Your task to perform on an android device: Go to notification settings Image 0: 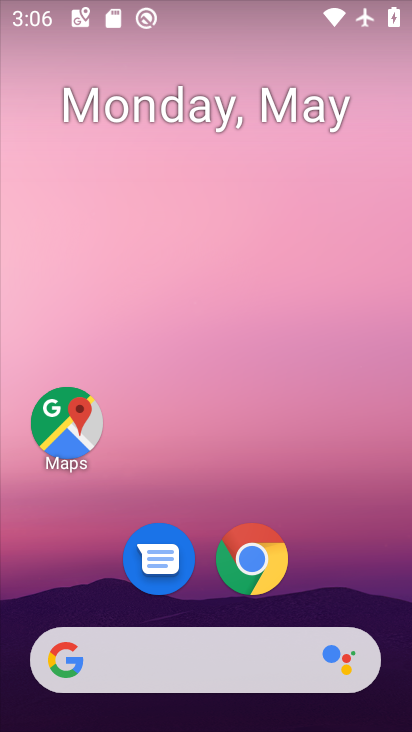
Step 0: drag from (321, 585) to (303, 11)
Your task to perform on an android device: Go to notification settings Image 1: 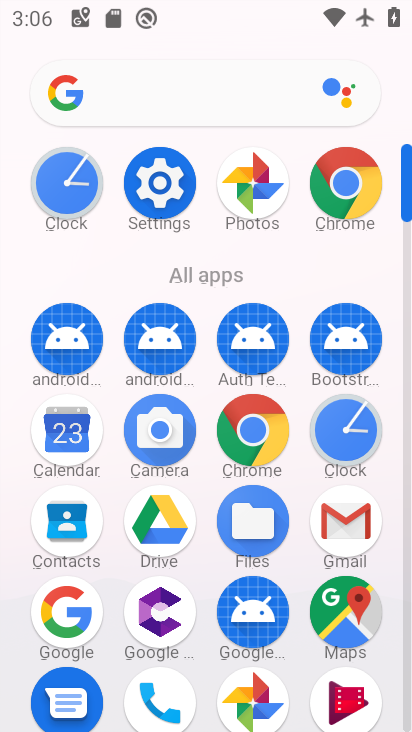
Step 1: click (161, 205)
Your task to perform on an android device: Go to notification settings Image 2: 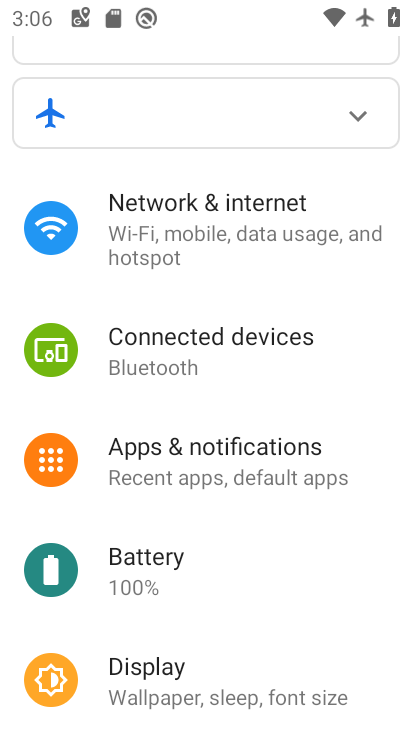
Step 2: click (194, 490)
Your task to perform on an android device: Go to notification settings Image 3: 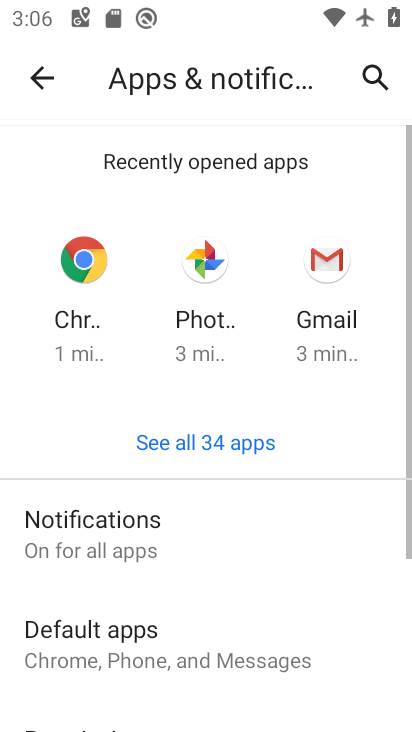
Step 3: drag from (158, 653) to (152, 218)
Your task to perform on an android device: Go to notification settings Image 4: 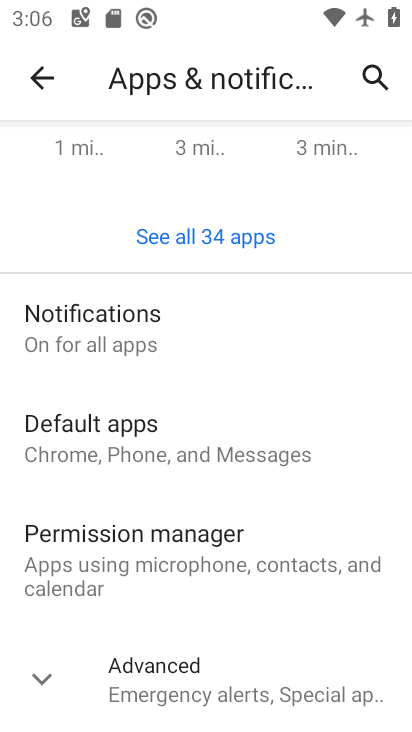
Step 4: click (74, 333)
Your task to perform on an android device: Go to notification settings Image 5: 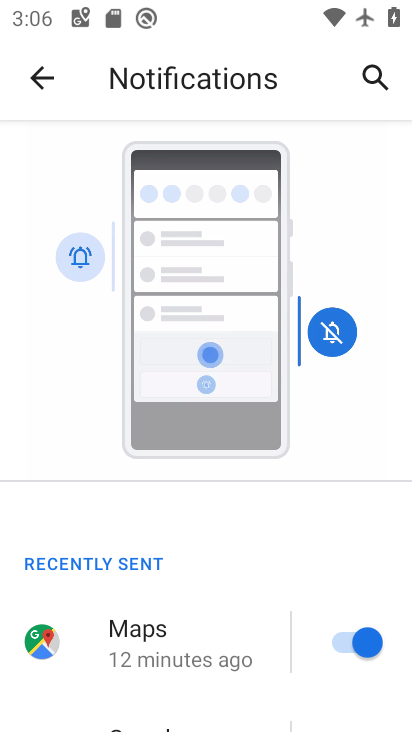
Step 5: task complete